Your task to perform on an android device: Go to Android settings Image 0: 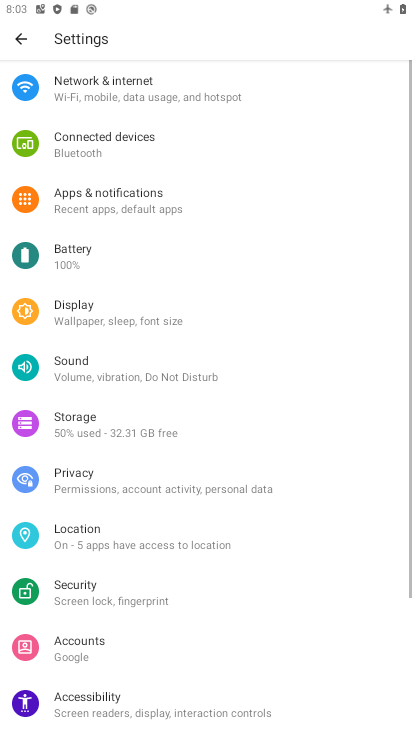
Step 0: press home button
Your task to perform on an android device: Go to Android settings Image 1: 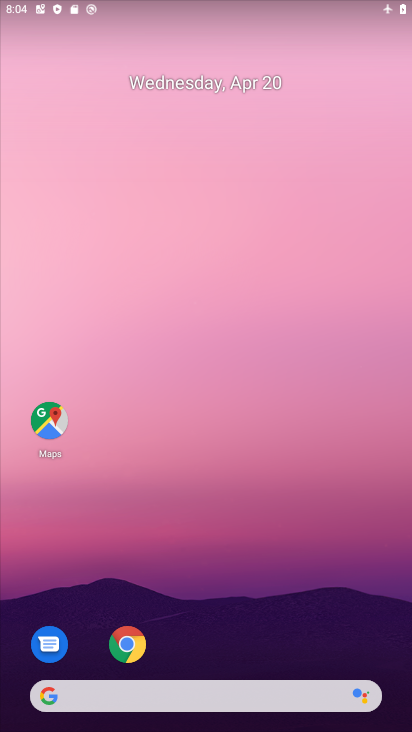
Step 1: drag from (324, 560) to (285, 123)
Your task to perform on an android device: Go to Android settings Image 2: 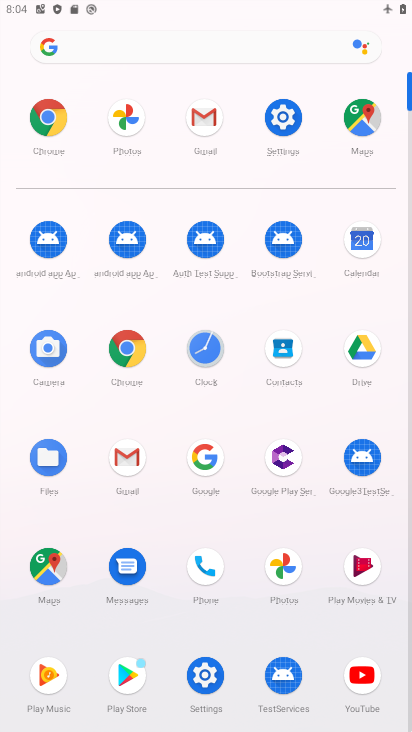
Step 2: click (267, 119)
Your task to perform on an android device: Go to Android settings Image 3: 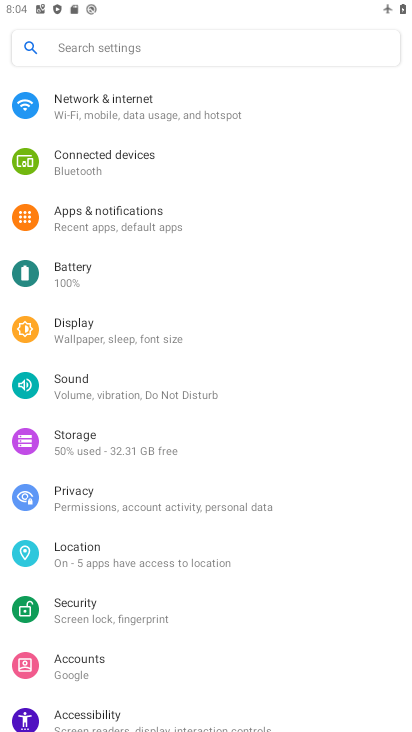
Step 3: drag from (145, 648) to (278, 101)
Your task to perform on an android device: Go to Android settings Image 4: 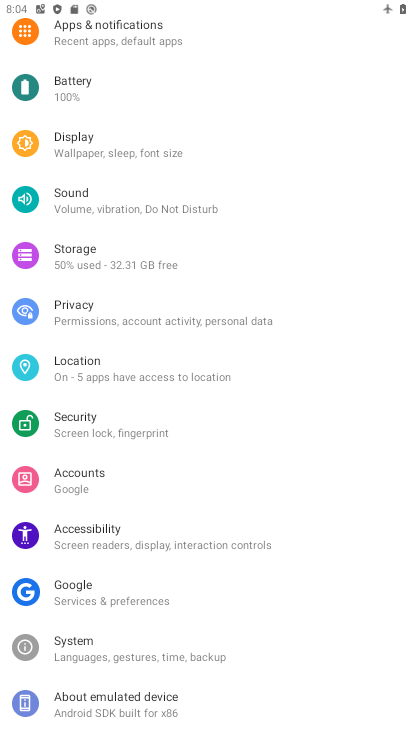
Step 4: click (123, 699)
Your task to perform on an android device: Go to Android settings Image 5: 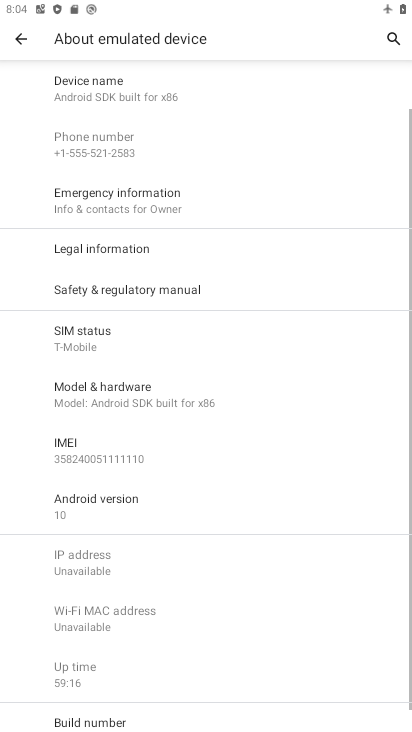
Step 5: click (137, 528)
Your task to perform on an android device: Go to Android settings Image 6: 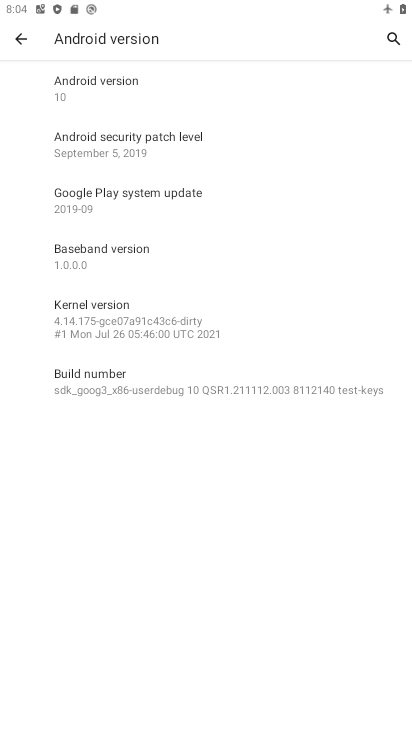
Step 6: click (234, 80)
Your task to perform on an android device: Go to Android settings Image 7: 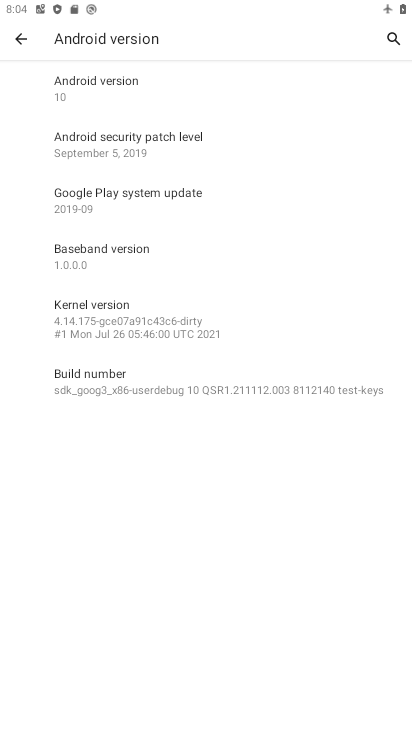
Step 7: task complete